Your task to perform on an android device: open a bookmark in the chrome app Image 0: 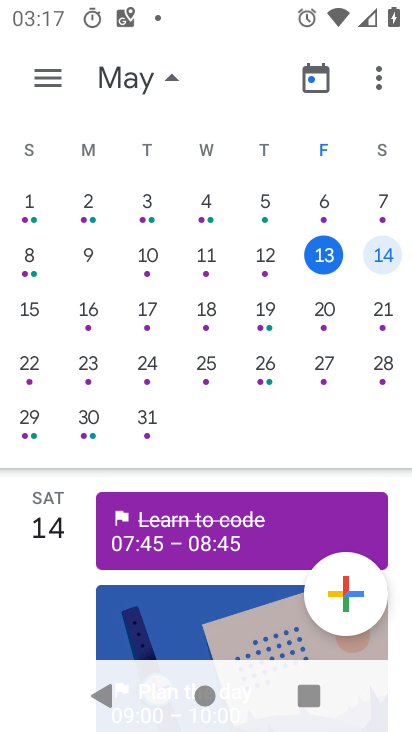
Step 0: press home button
Your task to perform on an android device: open a bookmark in the chrome app Image 1: 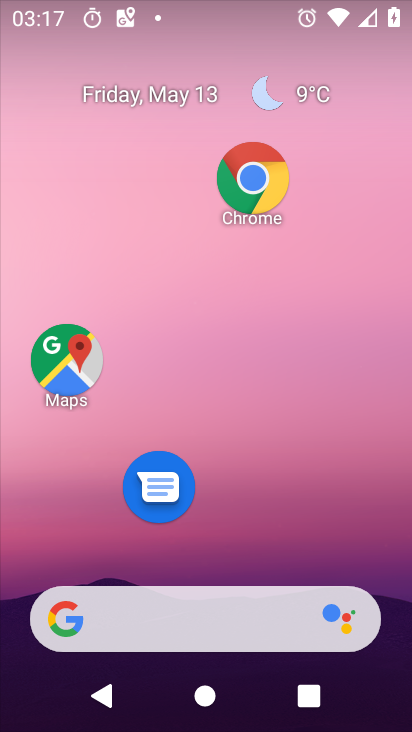
Step 1: click (256, 184)
Your task to perform on an android device: open a bookmark in the chrome app Image 2: 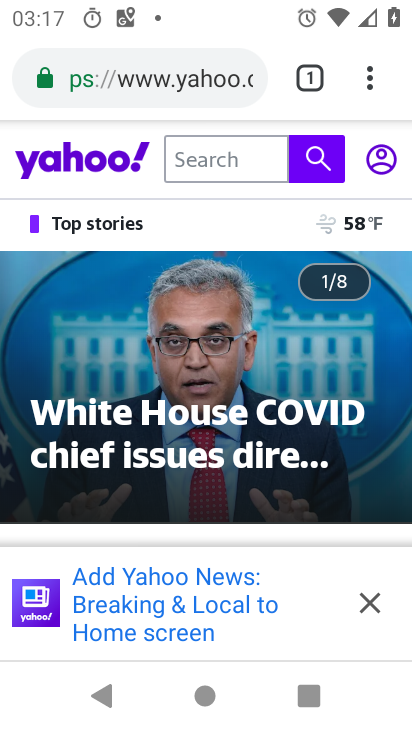
Step 2: click (356, 84)
Your task to perform on an android device: open a bookmark in the chrome app Image 3: 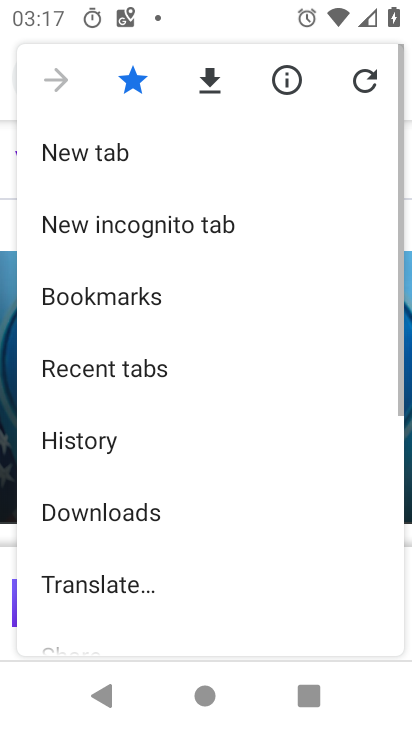
Step 3: drag from (200, 547) to (201, 317)
Your task to perform on an android device: open a bookmark in the chrome app Image 4: 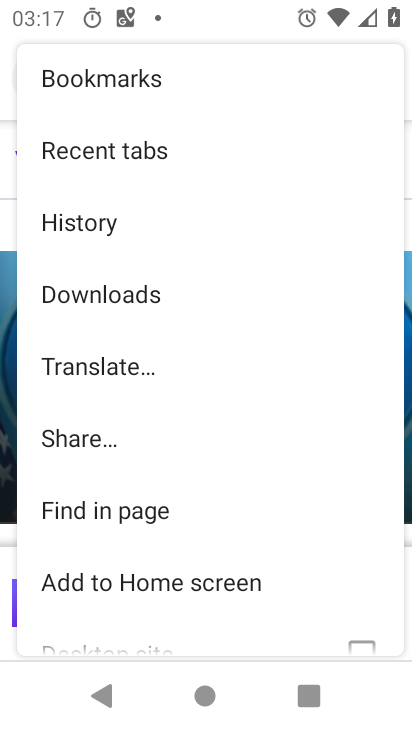
Step 4: click (165, 85)
Your task to perform on an android device: open a bookmark in the chrome app Image 5: 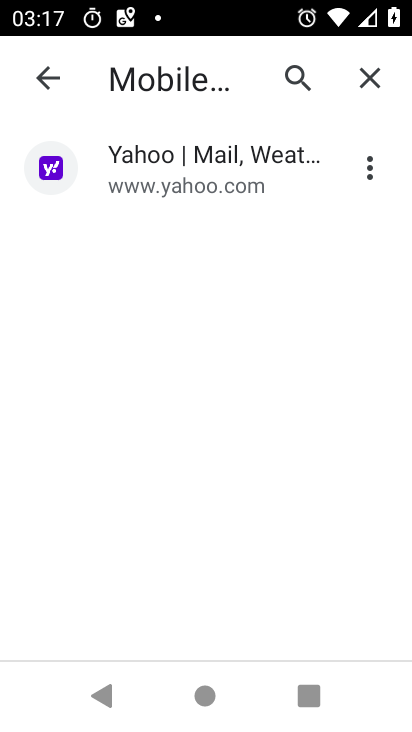
Step 5: click (176, 160)
Your task to perform on an android device: open a bookmark in the chrome app Image 6: 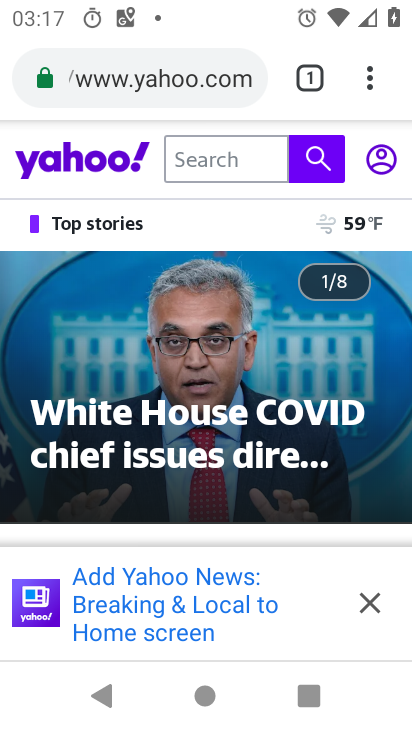
Step 6: task complete